Your task to perform on an android device: turn on showing notifications on the lock screen Image 0: 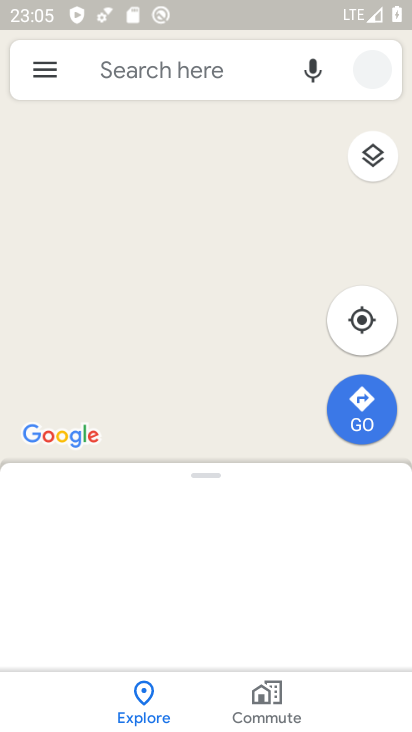
Step 0: drag from (343, 230) to (352, 77)
Your task to perform on an android device: turn on showing notifications on the lock screen Image 1: 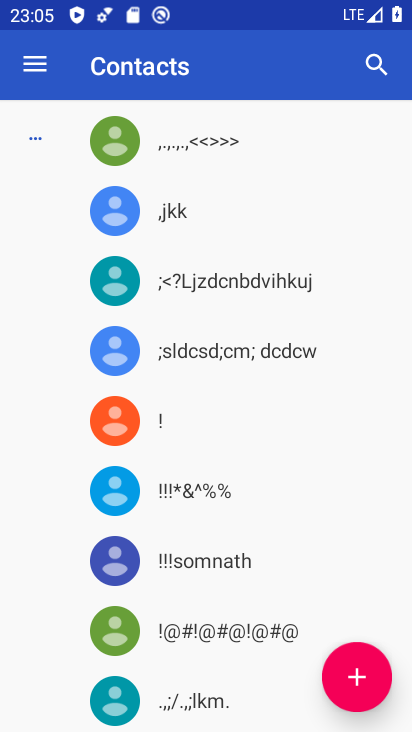
Step 1: press home button
Your task to perform on an android device: turn on showing notifications on the lock screen Image 2: 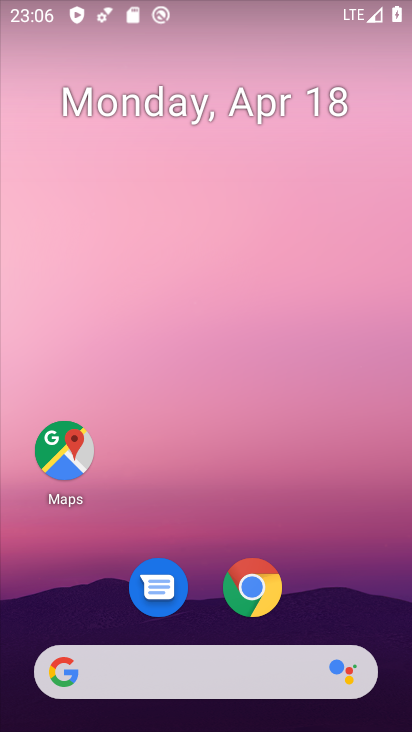
Step 2: drag from (354, 590) to (358, 63)
Your task to perform on an android device: turn on showing notifications on the lock screen Image 3: 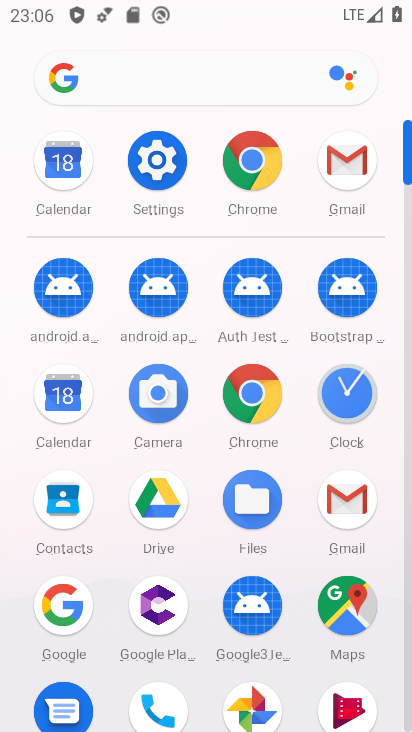
Step 3: click (160, 171)
Your task to perform on an android device: turn on showing notifications on the lock screen Image 4: 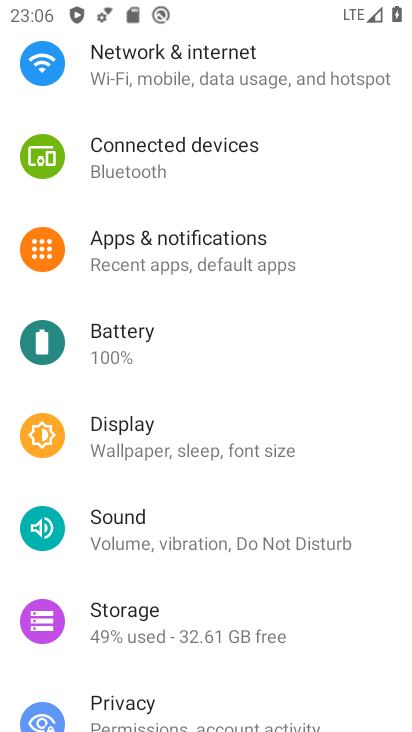
Step 4: click (236, 250)
Your task to perform on an android device: turn on showing notifications on the lock screen Image 5: 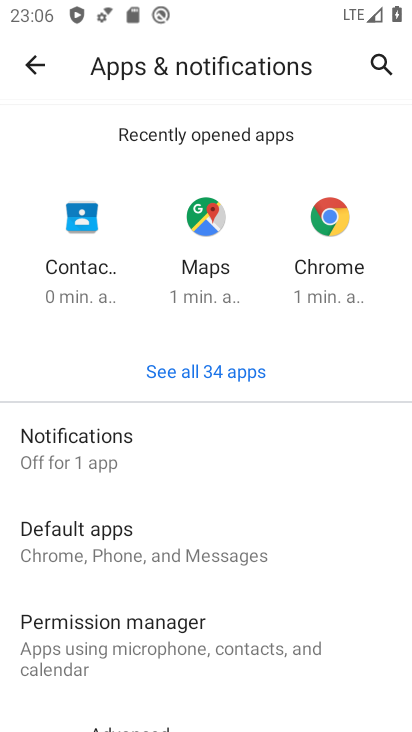
Step 5: click (83, 433)
Your task to perform on an android device: turn on showing notifications on the lock screen Image 6: 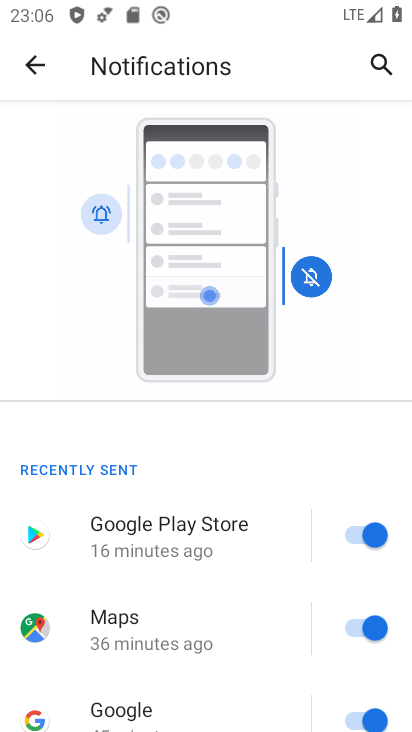
Step 6: drag from (214, 608) to (324, 208)
Your task to perform on an android device: turn on showing notifications on the lock screen Image 7: 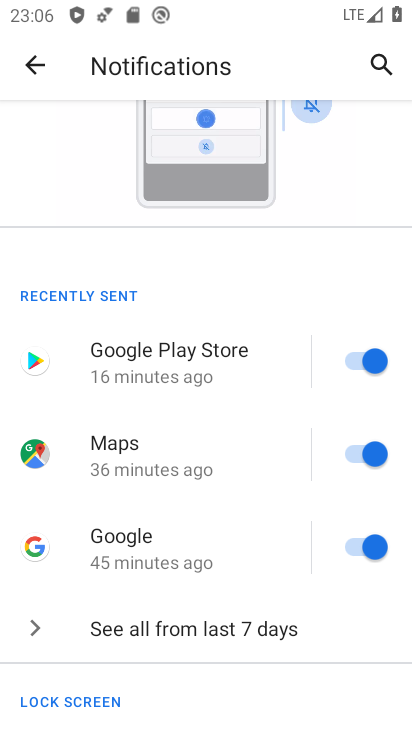
Step 7: drag from (252, 648) to (340, 217)
Your task to perform on an android device: turn on showing notifications on the lock screen Image 8: 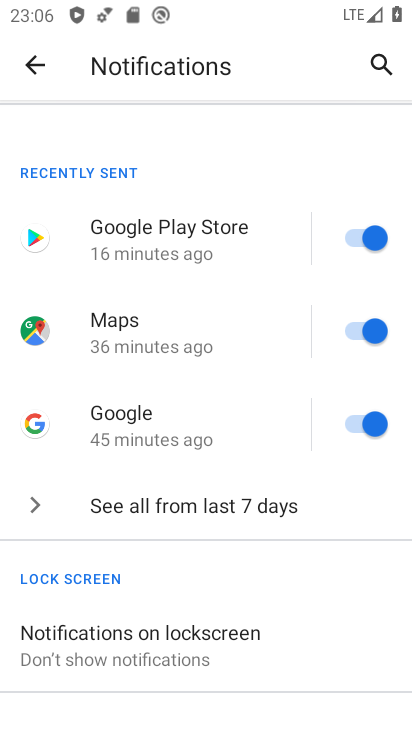
Step 8: click (159, 643)
Your task to perform on an android device: turn on showing notifications on the lock screen Image 9: 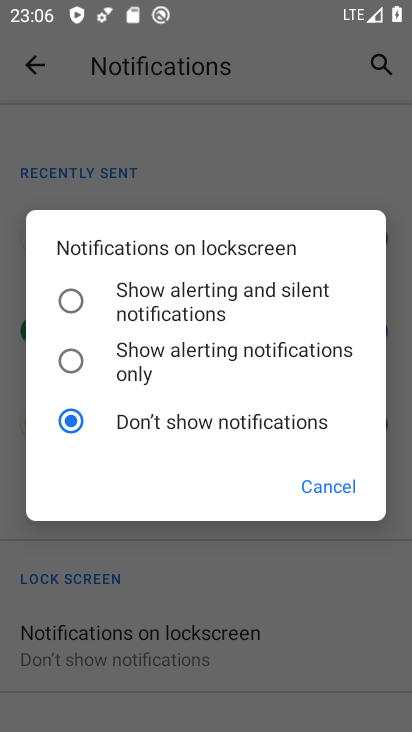
Step 9: click (139, 268)
Your task to perform on an android device: turn on showing notifications on the lock screen Image 10: 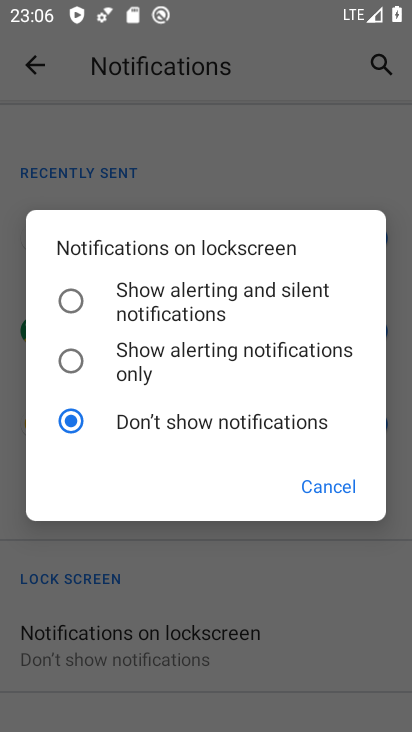
Step 10: click (75, 303)
Your task to perform on an android device: turn on showing notifications on the lock screen Image 11: 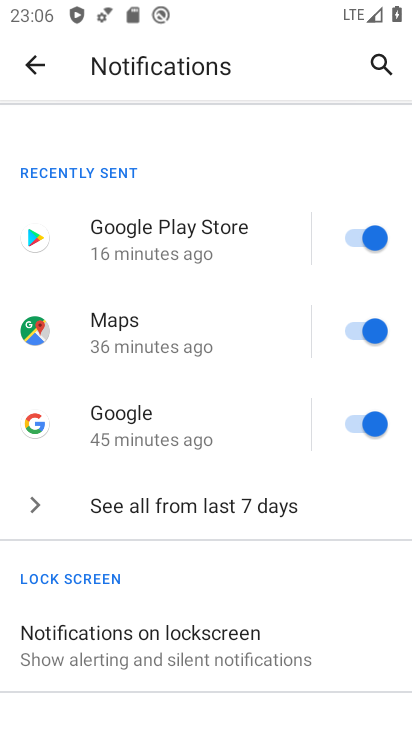
Step 11: task complete